Your task to perform on an android device: turn on showing notifications on the lock screen Image 0: 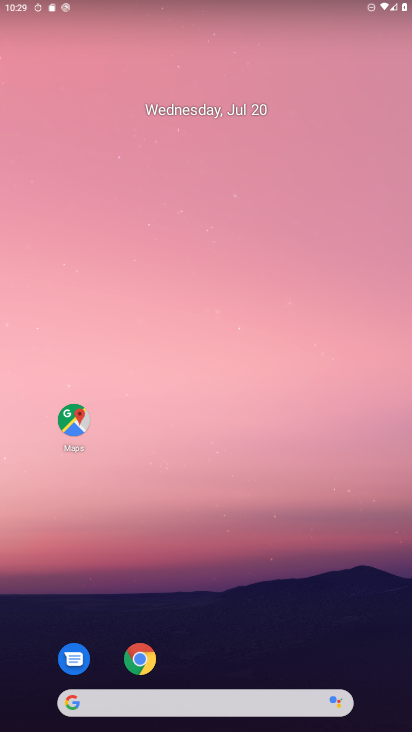
Step 0: drag from (371, 601) to (313, 96)
Your task to perform on an android device: turn on showing notifications on the lock screen Image 1: 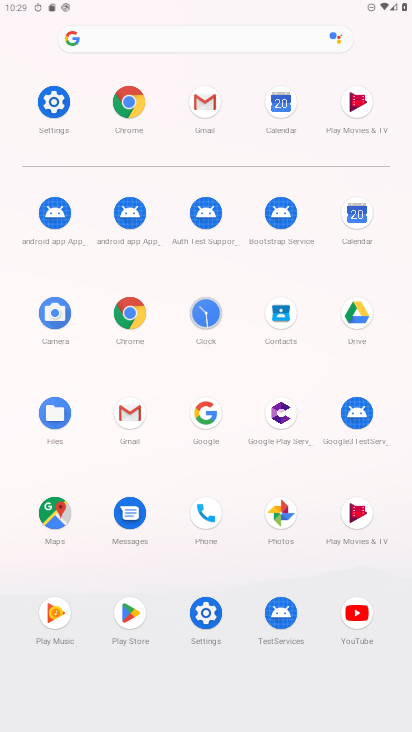
Step 1: click (51, 105)
Your task to perform on an android device: turn on showing notifications on the lock screen Image 2: 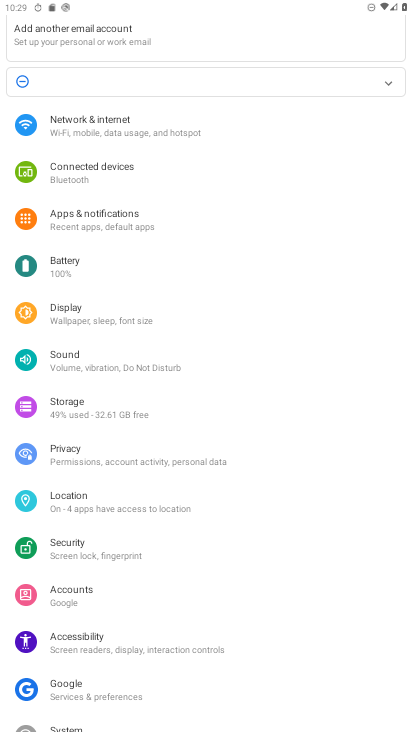
Step 2: click (124, 217)
Your task to perform on an android device: turn on showing notifications on the lock screen Image 3: 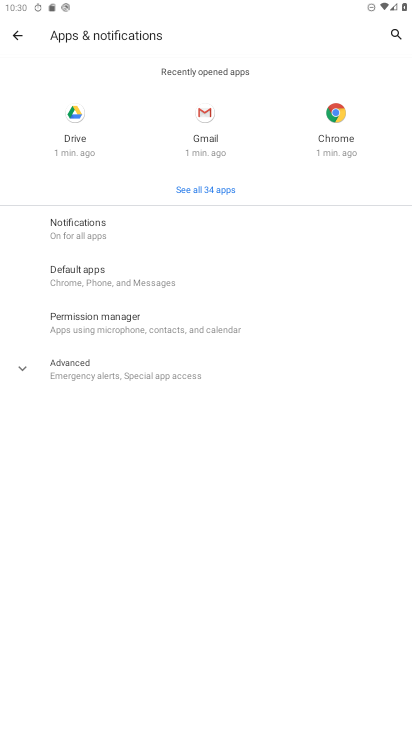
Step 3: click (71, 238)
Your task to perform on an android device: turn on showing notifications on the lock screen Image 4: 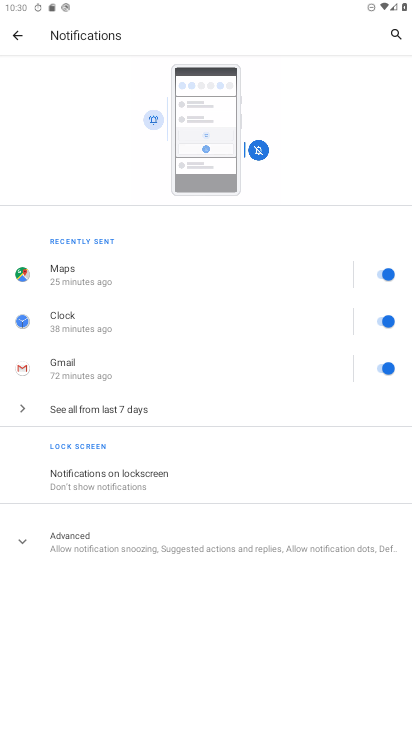
Step 4: click (134, 472)
Your task to perform on an android device: turn on showing notifications on the lock screen Image 5: 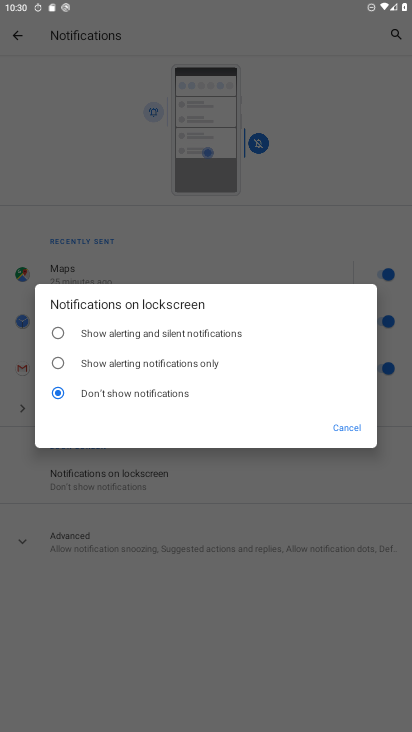
Step 5: click (192, 361)
Your task to perform on an android device: turn on showing notifications on the lock screen Image 6: 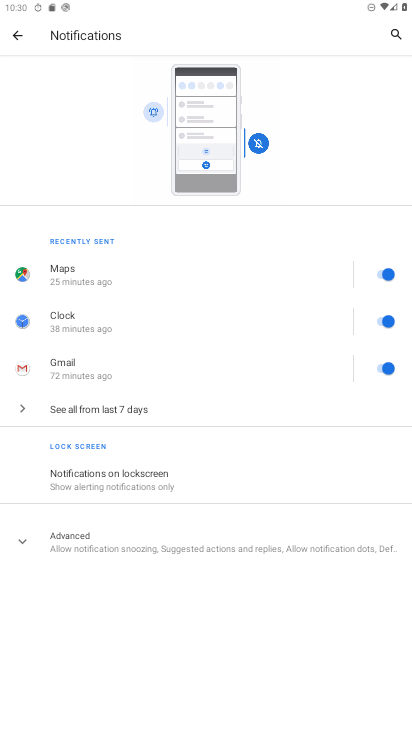
Step 6: task complete